Your task to perform on an android device: Open Amazon Image 0: 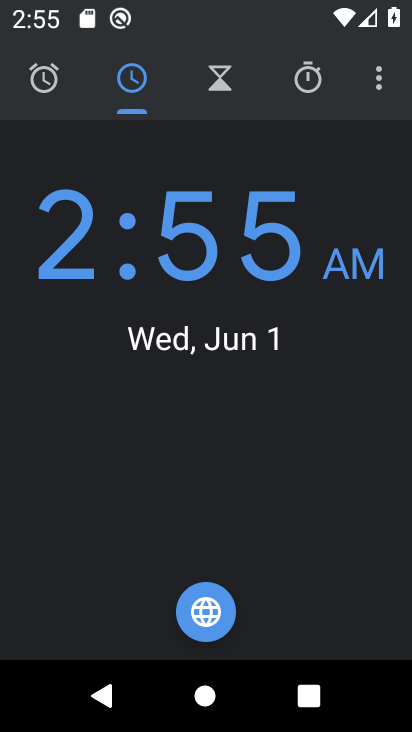
Step 0: press home button
Your task to perform on an android device: Open Amazon Image 1: 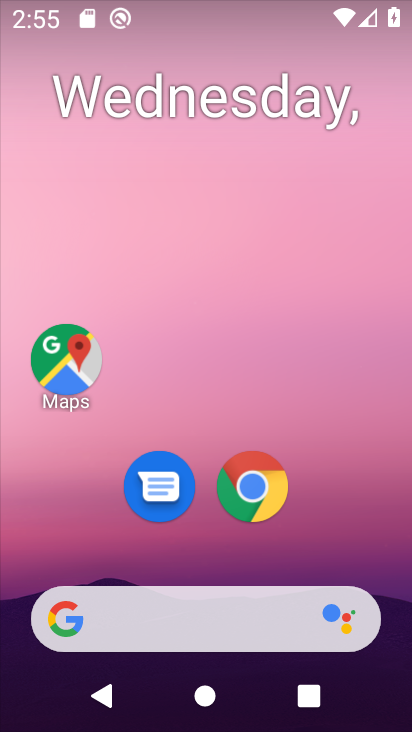
Step 1: click (251, 494)
Your task to perform on an android device: Open Amazon Image 2: 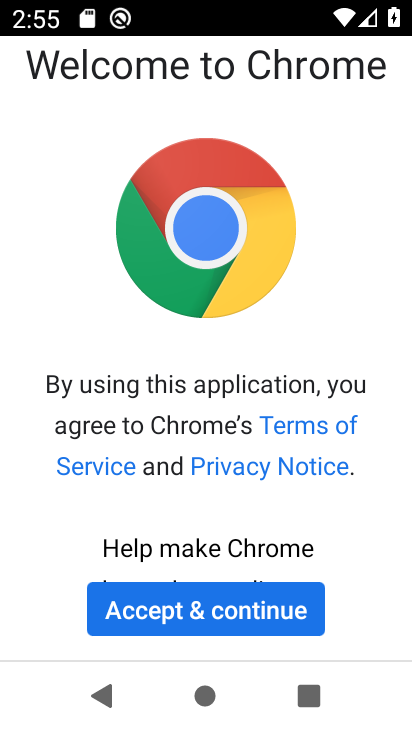
Step 2: click (214, 612)
Your task to perform on an android device: Open Amazon Image 3: 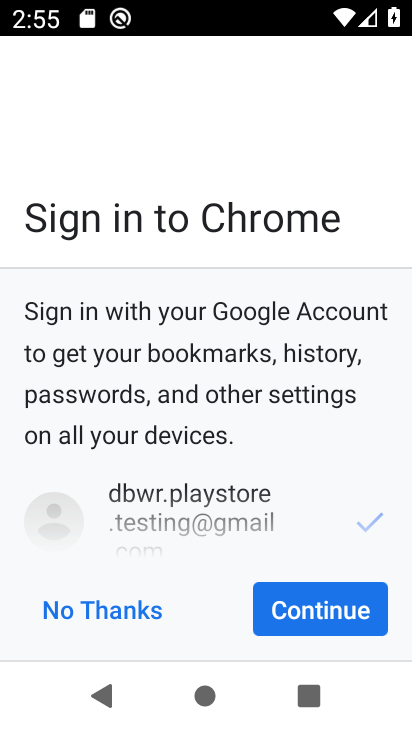
Step 3: click (323, 609)
Your task to perform on an android device: Open Amazon Image 4: 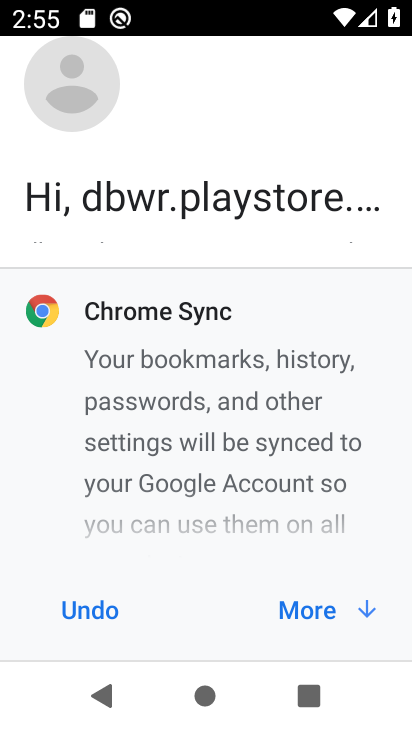
Step 4: click (323, 609)
Your task to perform on an android device: Open Amazon Image 5: 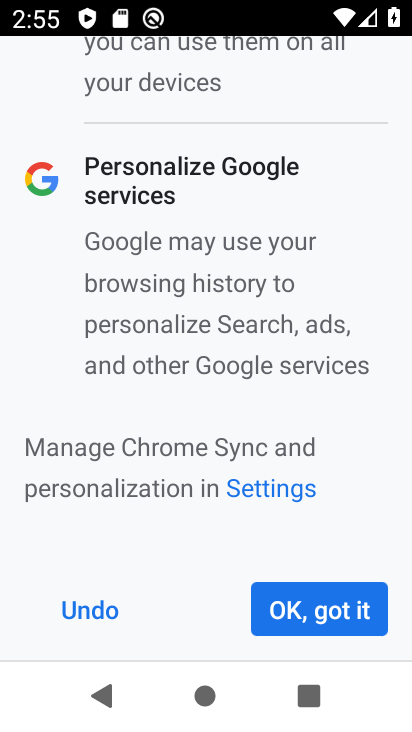
Step 5: click (323, 609)
Your task to perform on an android device: Open Amazon Image 6: 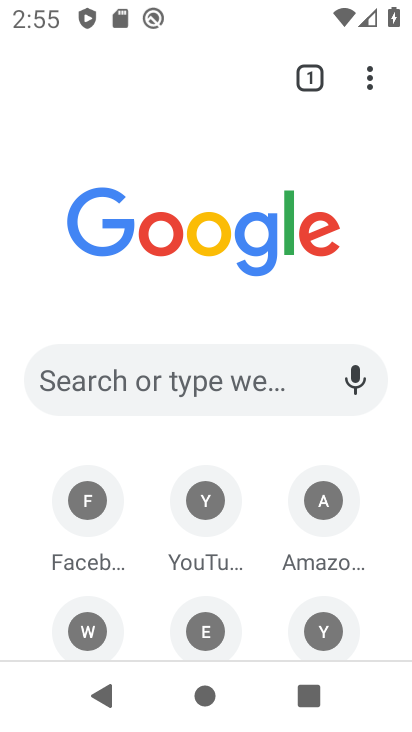
Step 6: click (326, 500)
Your task to perform on an android device: Open Amazon Image 7: 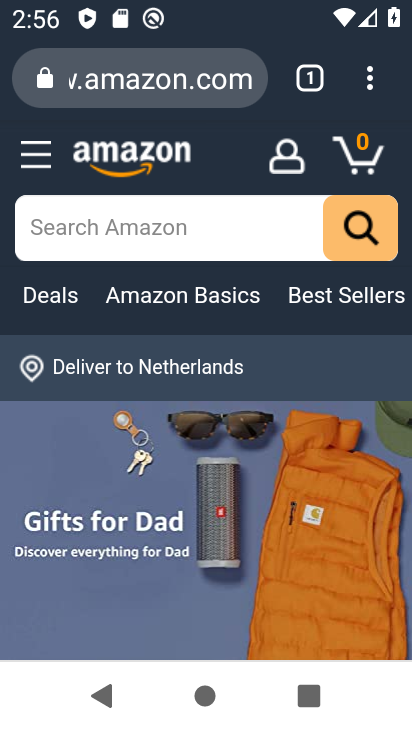
Step 7: task complete